Your task to perform on an android device: Show me productivity apps on the Play Store Image 0: 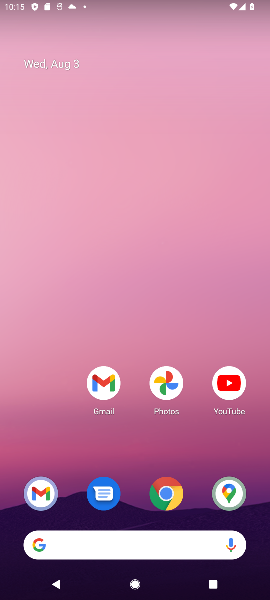
Step 0: press home button
Your task to perform on an android device: Show me productivity apps on the Play Store Image 1: 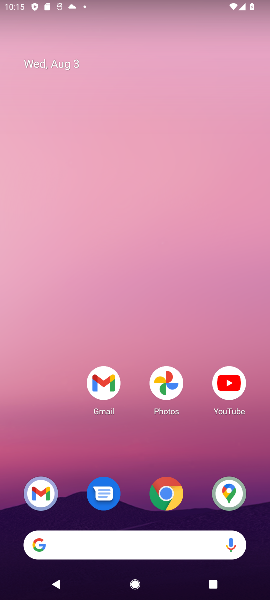
Step 1: drag from (135, 469) to (137, 22)
Your task to perform on an android device: Show me productivity apps on the Play Store Image 2: 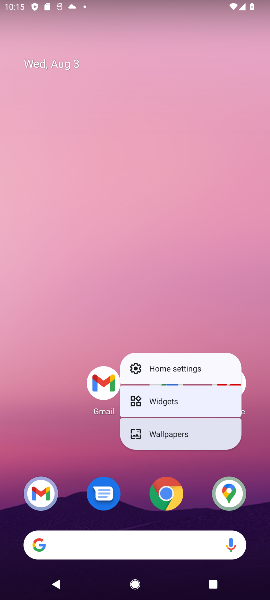
Step 2: click (113, 296)
Your task to perform on an android device: Show me productivity apps on the Play Store Image 3: 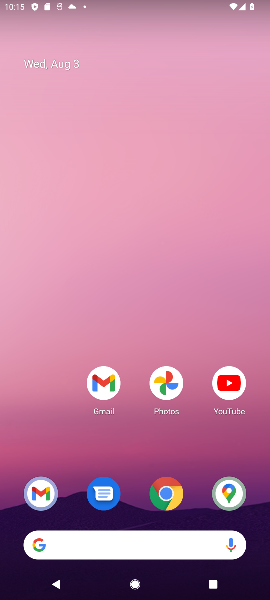
Step 3: drag from (52, 439) to (73, 0)
Your task to perform on an android device: Show me productivity apps on the Play Store Image 4: 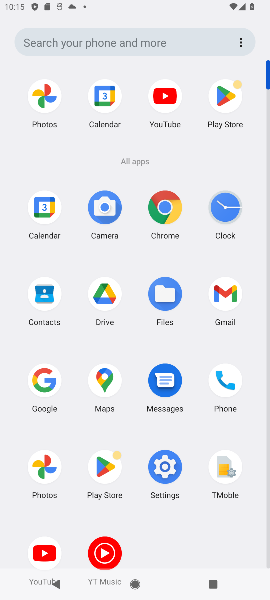
Step 4: click (102, 461)
Your task to perform on an android device: Show me productivity apps on the Play Store Image 5: 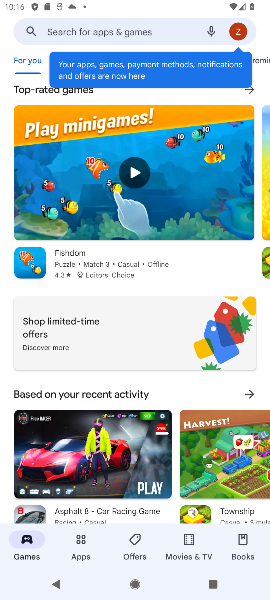
Step 5: click (80, 538)
Your task to perform on an android device: Show me productivity apps on the Play Store Image 6: 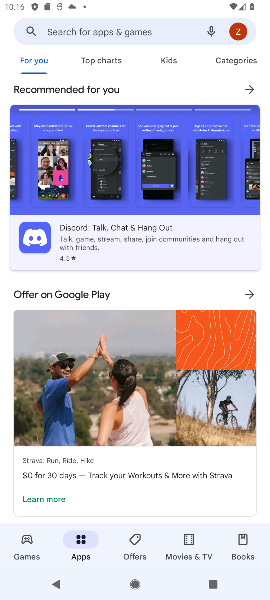
Step 6: click (236, 31)
Your task to perform on an android device: Show me productivity apps on the Play Store Image 7: 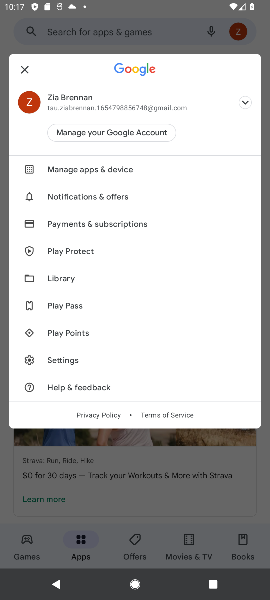
Step 7: click (104, 478)
Your task to perform on an android device: Show me productivity apps on the Play Store Image 8: 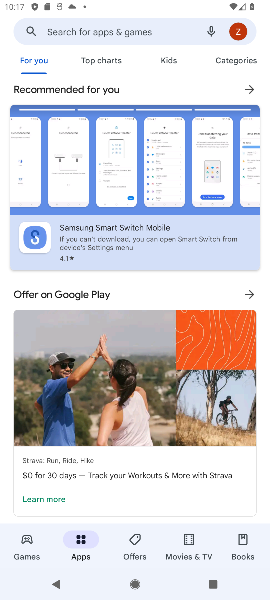
Step 8: click (232, 61)
Your task to perform on an android device: Show me productivity apps on the Play Store Image 9: 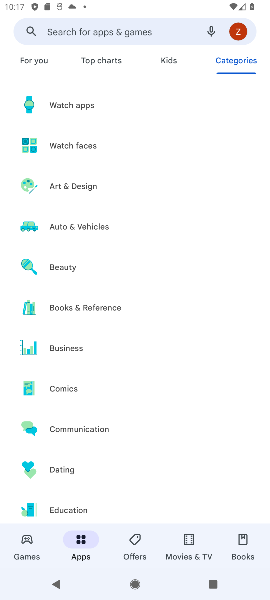
Step 9: drag from (100, 495) to (168, 2)
Your task to perform on an android device: Show me productivity apps on the Play Store Image 10: 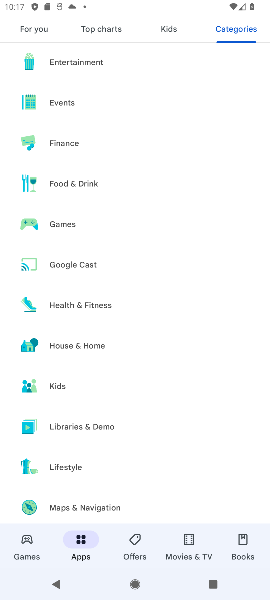
Step 10: drag from (102, 455) to (170, 3)
Your task to perform on an android device: Show me productivity apps on the Play Store Image 11: 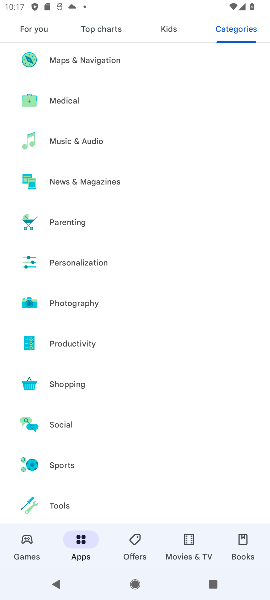
Step 11: click (99, 339)
Your task to perform on an android device: Show me productivity apps on the Play Store Image 12: 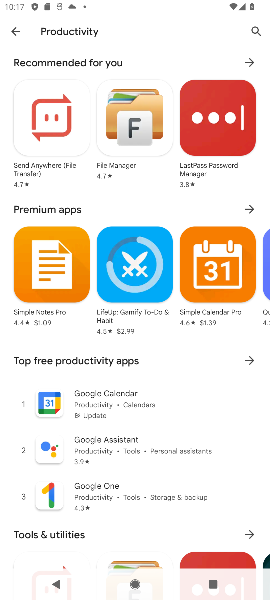
Step 12: task complete